Your task to perform on an android device: Show me the alarms in the clock app Image 0: 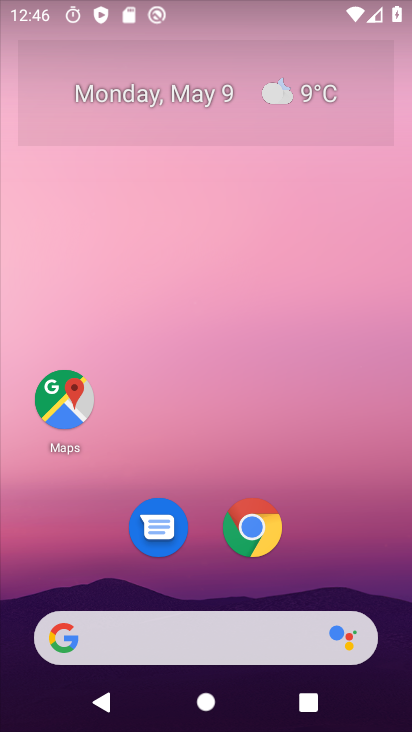
Step 0: drag from (222, 428) to (308, 70)
Your task to perform on an android device: Show me the alarms in the clock app Image 1: 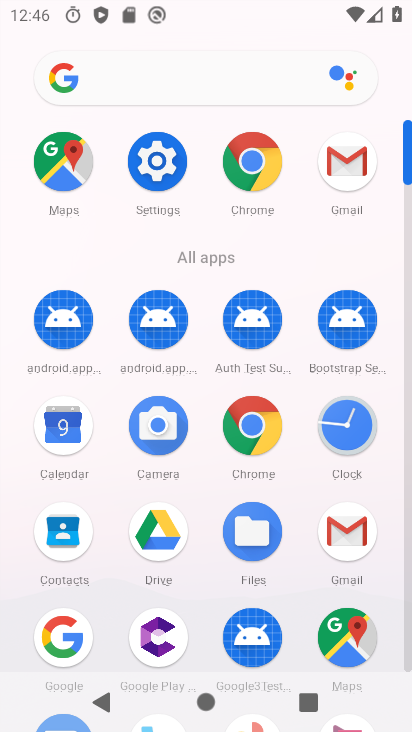
Step 1: click (346, 417)
Your task to perform on an android device: Show me the alarms in the clock app Image 2: 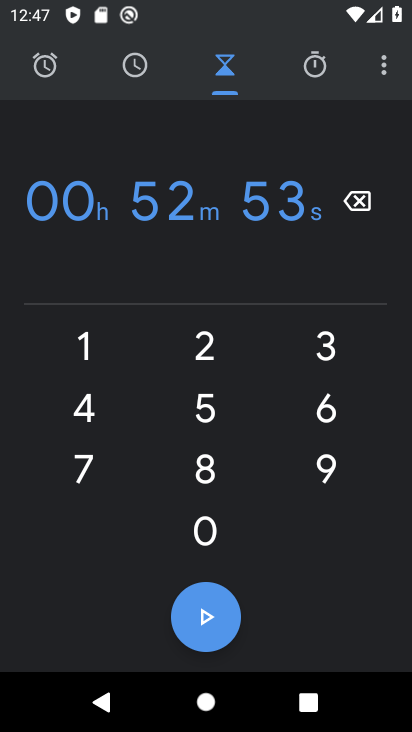
Step 2: click (30, 64)
Your task to perform on an android device: Show me the alarms in the clock app Image 3: 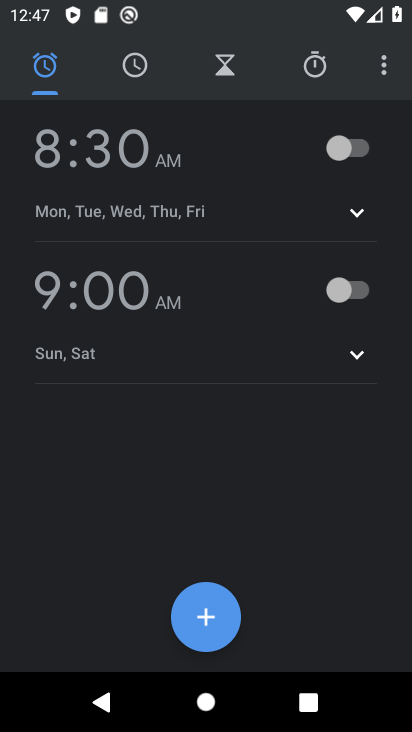
Step 3: task complete